Your task to perform on an android device: Show me the alarms in the clock app Image 0: 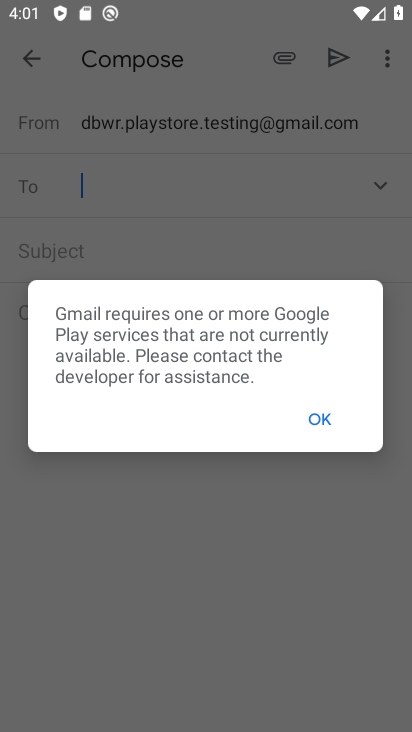
Step 0: press home button
Your task to perform on an android device: Show me the alarms in the clock app Image 1: 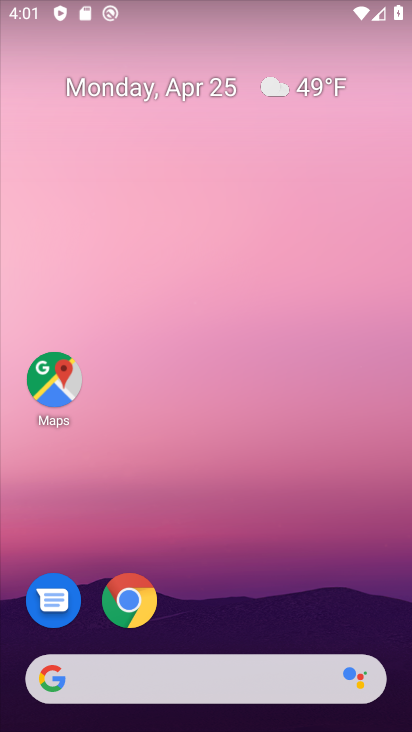
Step 1: drag from (318, 616) to (191, 1)
Your task to perform on an android device: Show me the alarms in the clock app Image 2: 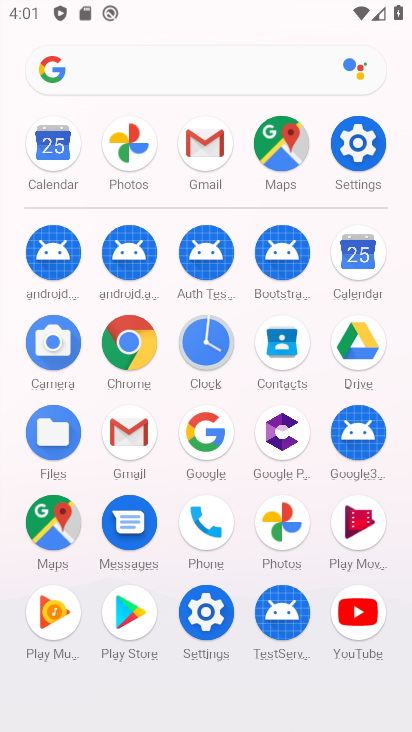
Step 2: click (198, 335)
Your task to perform on an android device: Show me the alarms in the clock app Image 3: 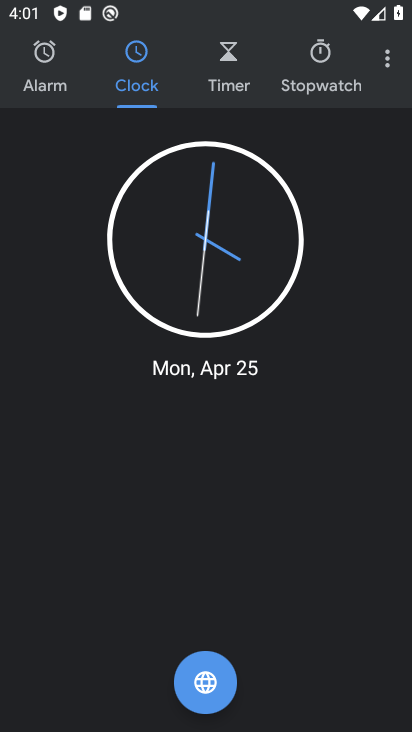
Step 3: click (46, 59)
Your task to perform on an android device: Show me the alarms in the clock app Image 4: 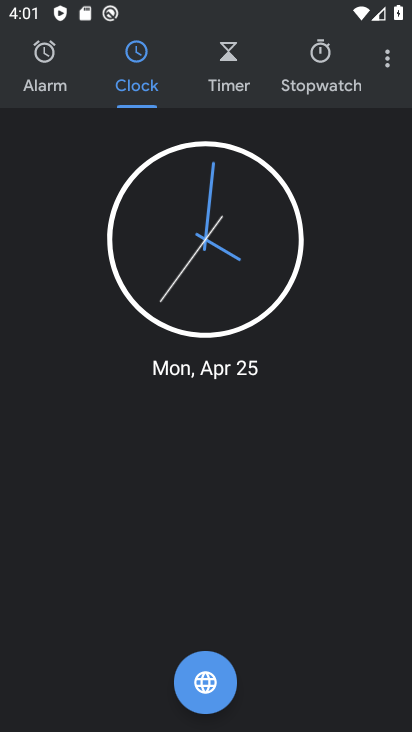
Step 4: click (46, 62)
Your task to perform on an android device: Show me the alarms in the clock app Image 5: 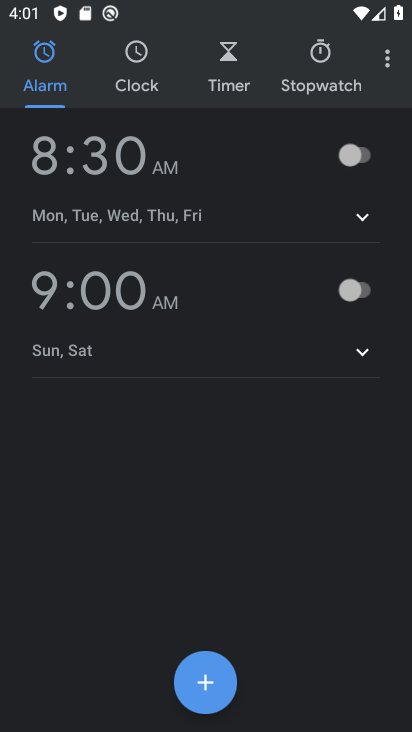
Step 5: task complete